Your task to perform on an android device: install app "Gmail" Image 0: 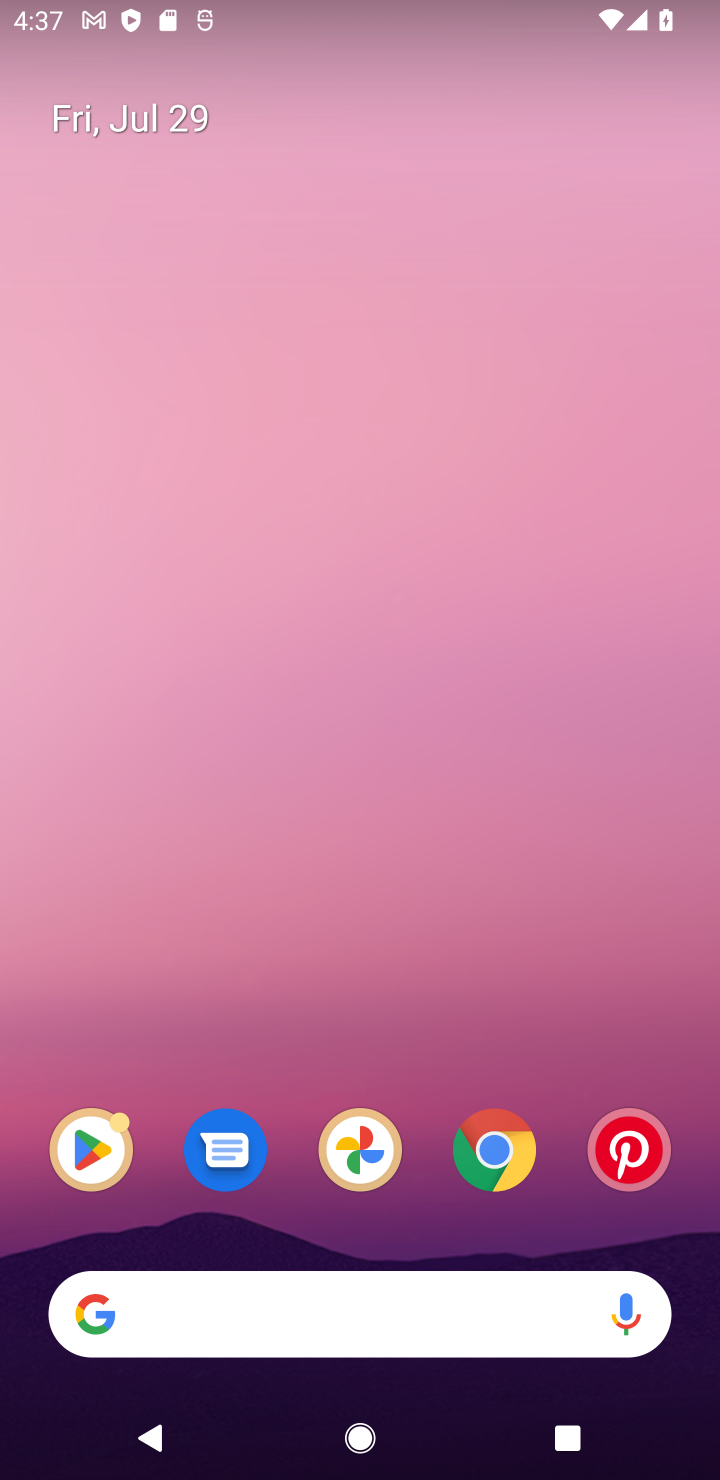
Step 0: drag from (412, 1440) to (410, 204)
Your task to perform on an android device: install app "Gmail" Image 1: 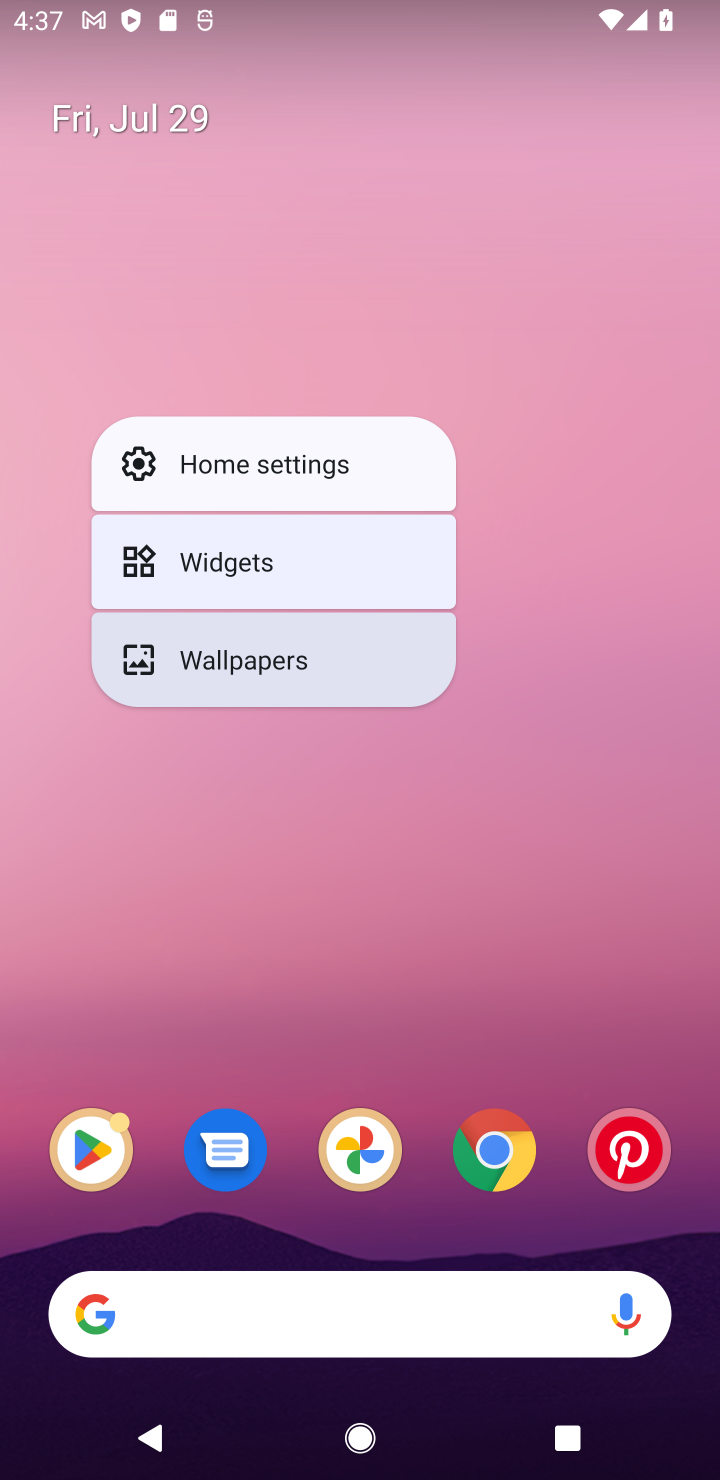
Step 1: click (487, 895)
Your task to perform on an android device: install app "Gmail" Image 2: 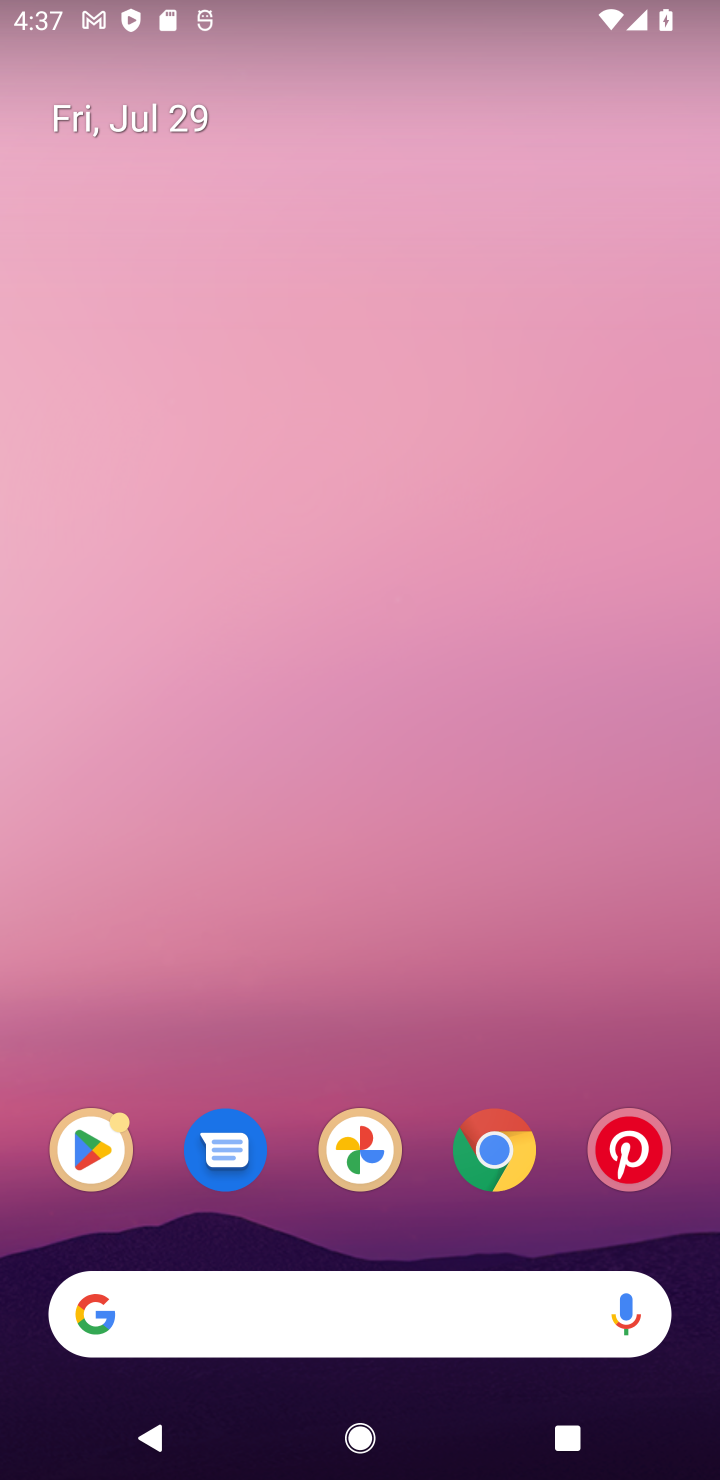
Step 2: drag from (456, 1328) to (474, 181)
Your task to perform on an android device: install app "Gmail" Image 3: 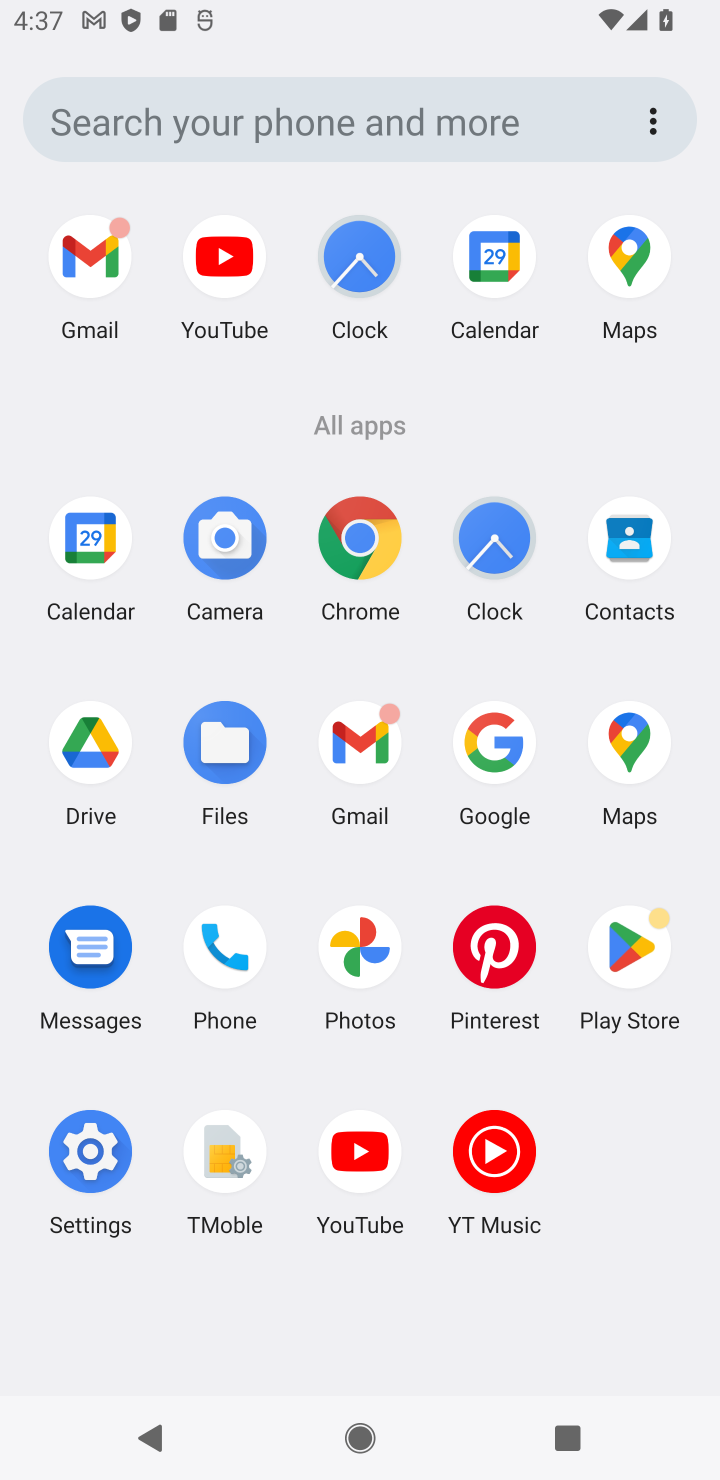
Step 3: click (622, 941)
Your task to perform on an android device: install app "Gmail" Image 4: 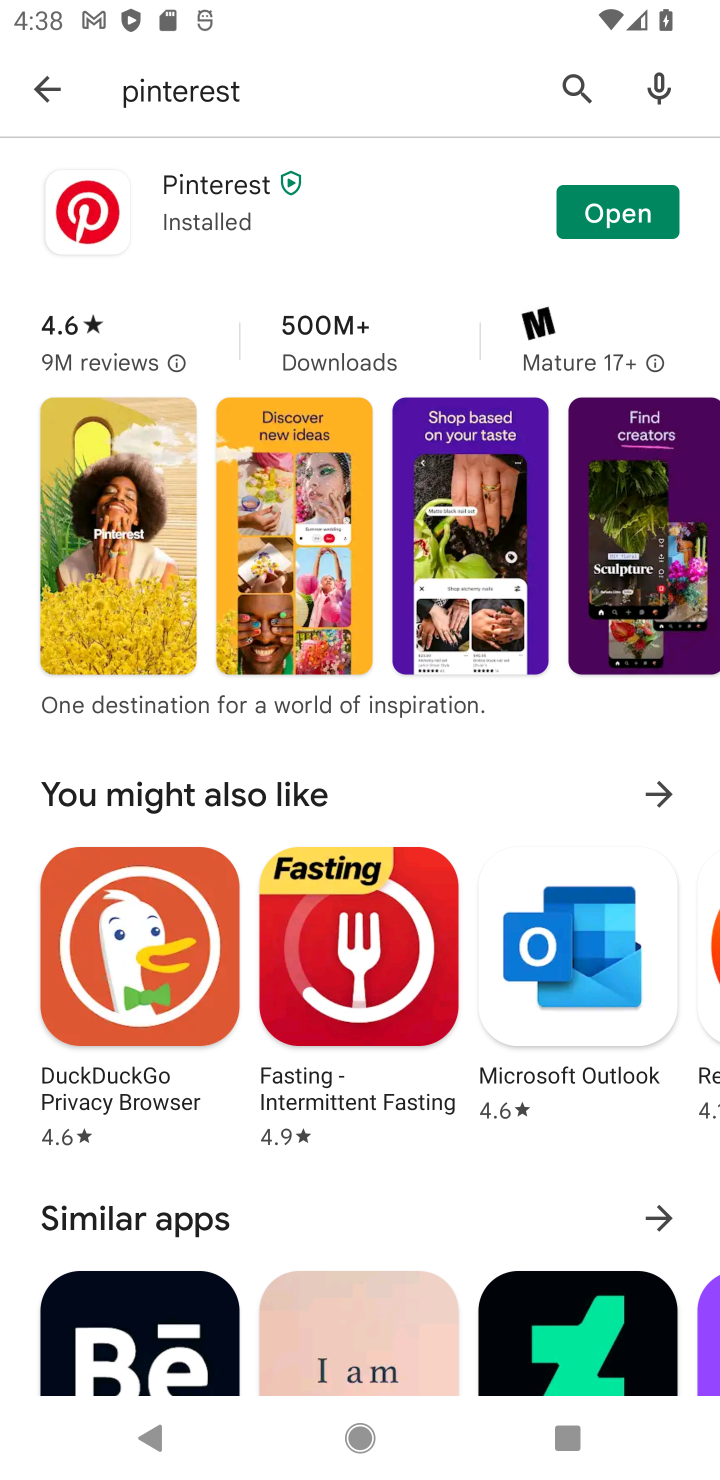
Step 4: click (574, 81)
Your task to perform on an android device: install app "Gmail" Image 5: 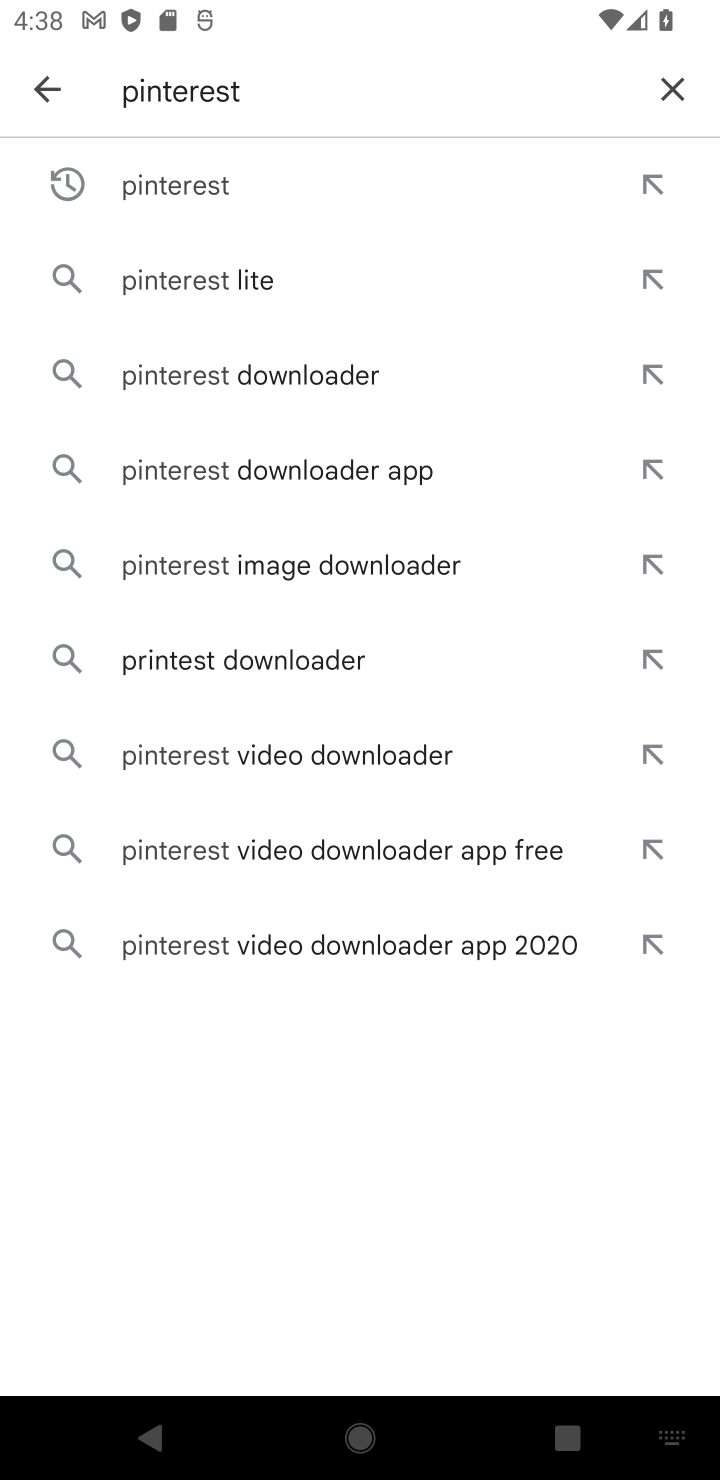
Step 5: click (669, 76)
Your task to perform on an android device: install app "Gmail" Image 6: 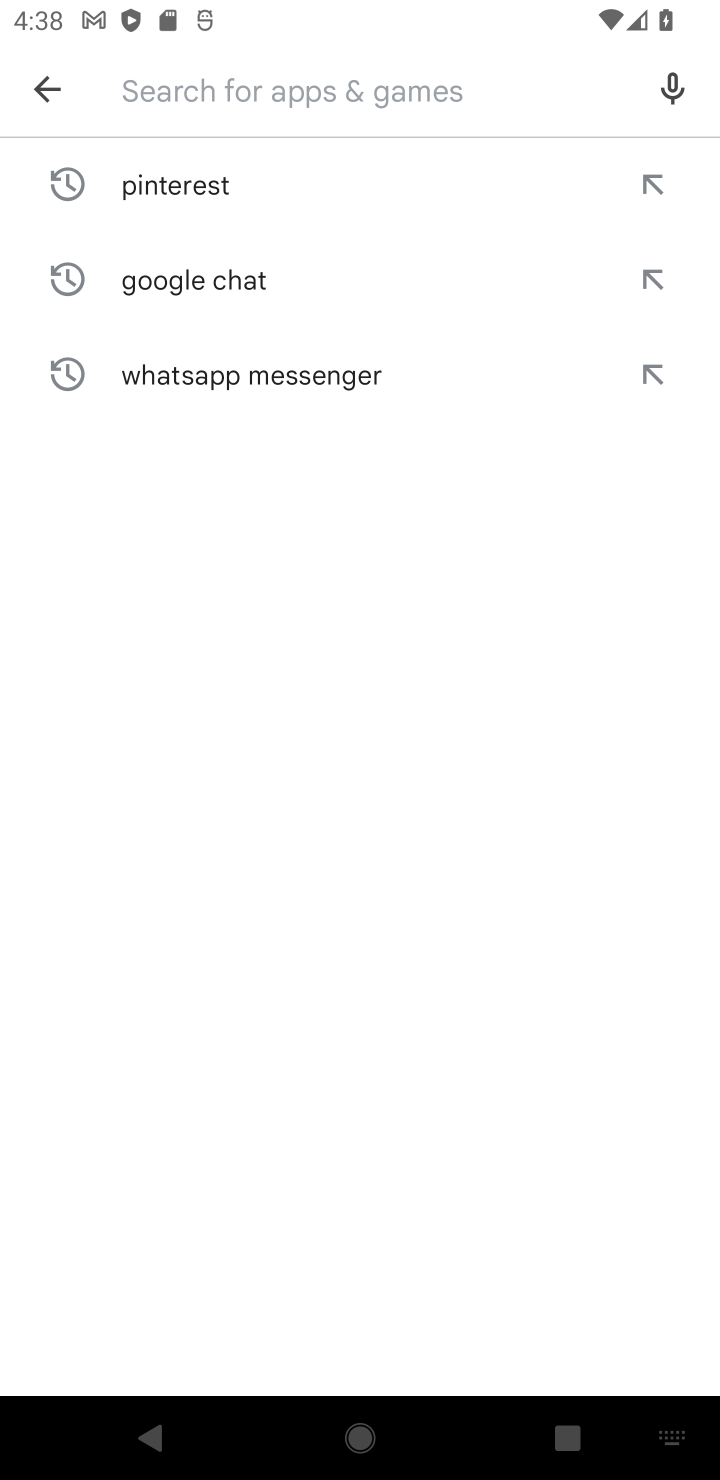
Step 6: type "Gmail"
Your task to perform on an android device: install app "Gmail" Image 7: 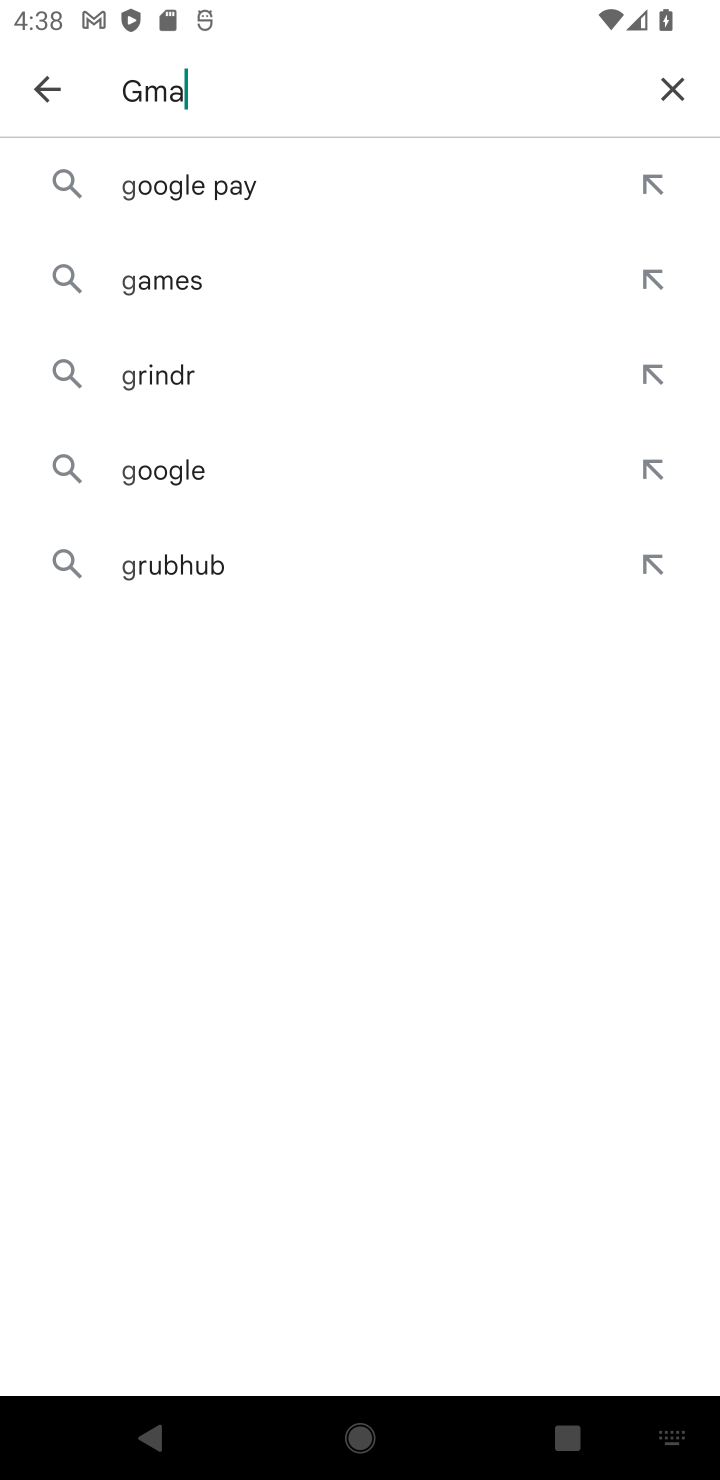
Step 7: type ""
Your task to perform on an android device: install app "Gmail" Image 8: 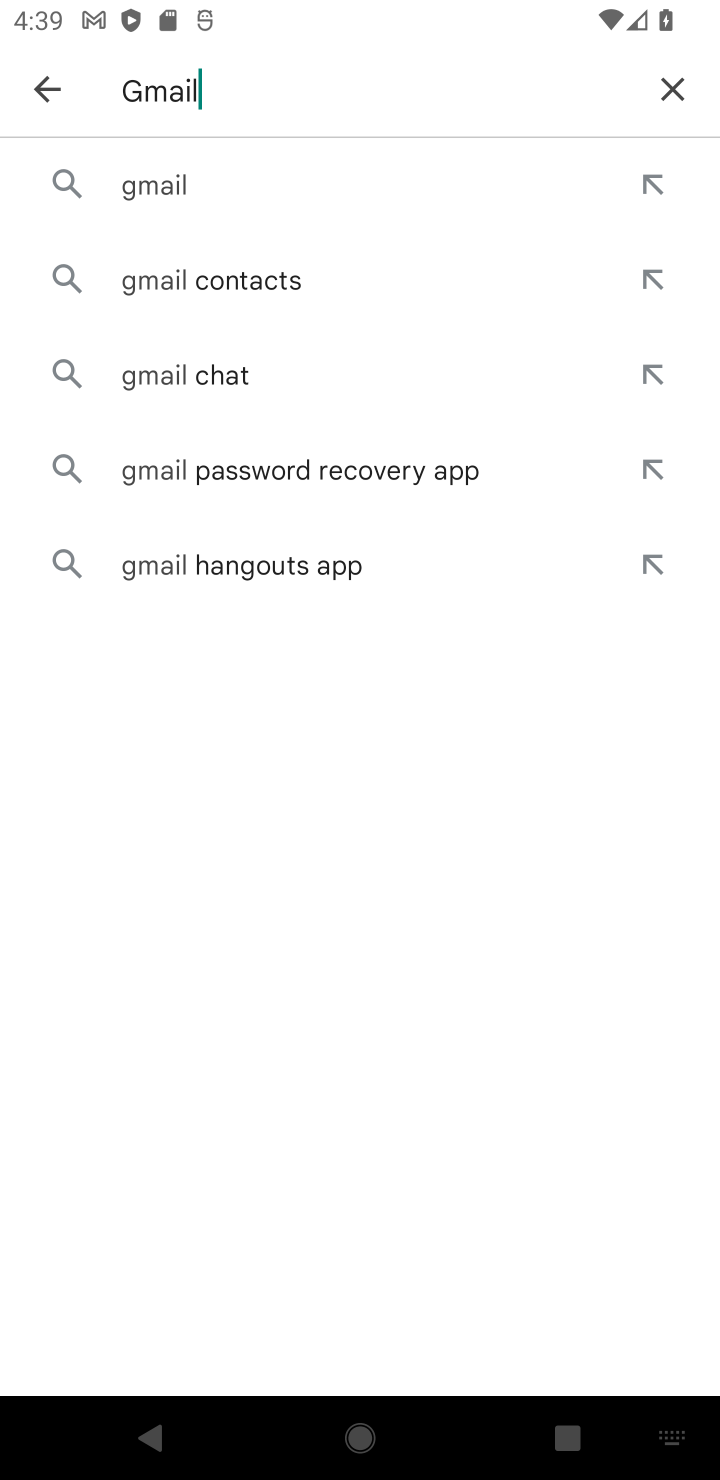
Step 8: click (151, 190)
Your task to perform on an android device: install app "Gmail" Image 9: 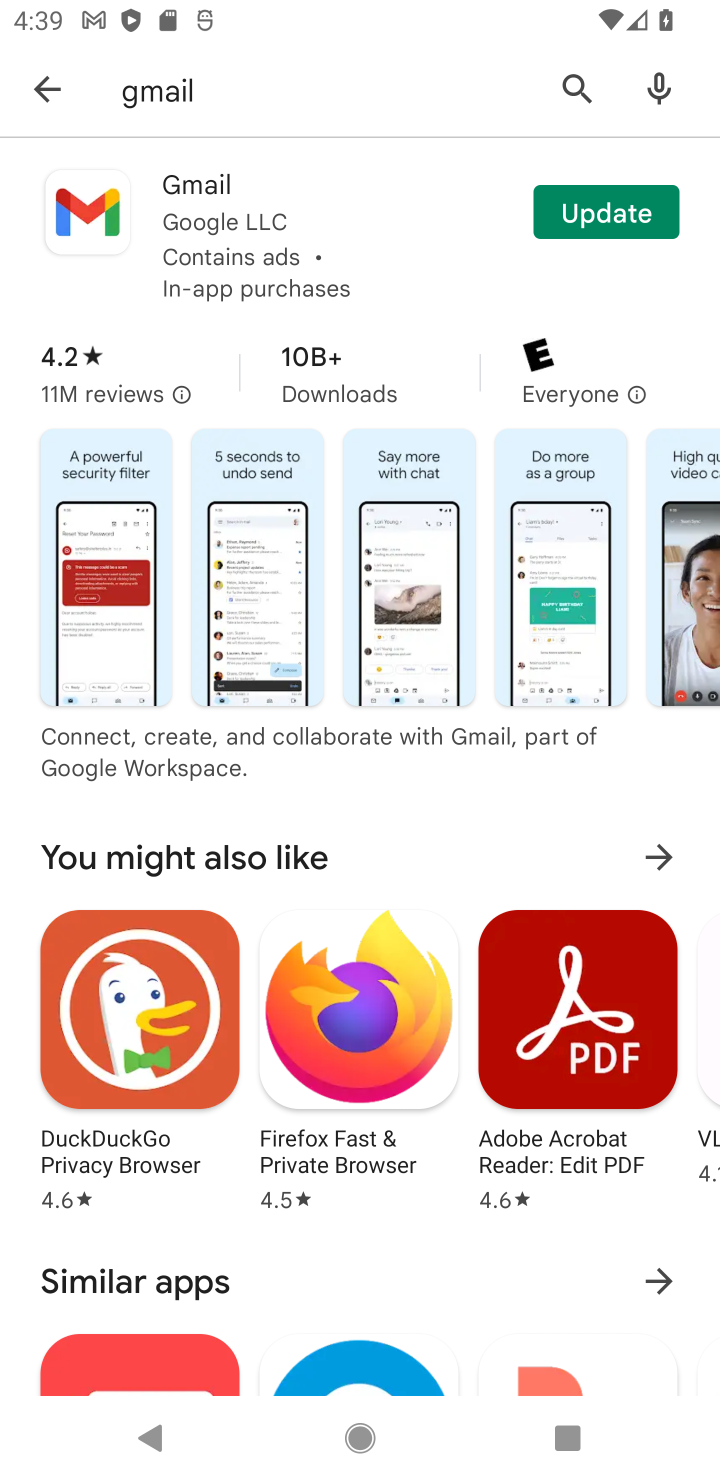
Step 9: task complete